Your task to perform on an android device: Open Chrome and go to settings Image 0: 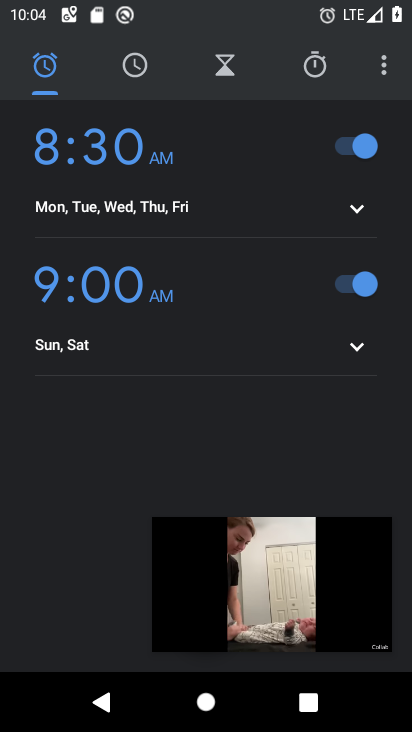
Step 0: press home button
Your task to perform on an android device: Open Chrome and go to settings Image 1: 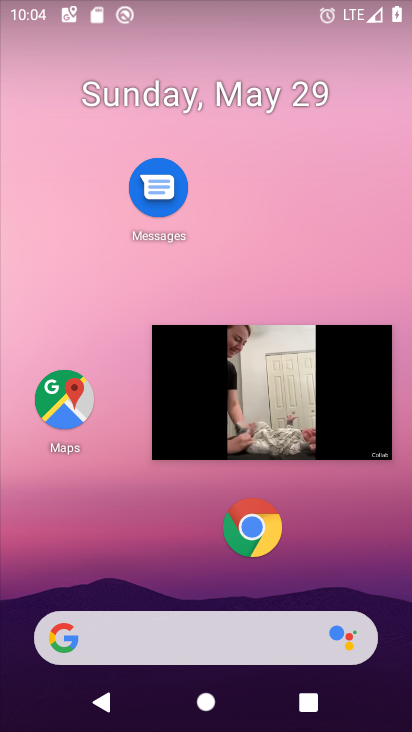
Step 1: click (277, 373)
Your task to perform on an android device: Open Chrome and go to settings Image 2: 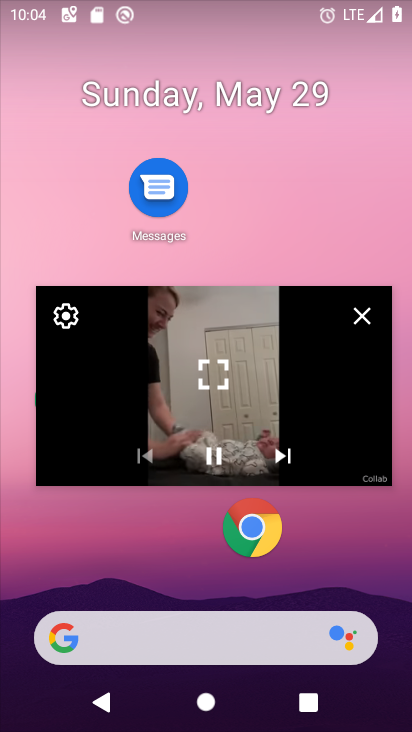
Step 2: click (368, 313)
Your task to perform on an android device: Open Chrome and go to settings Image 3: 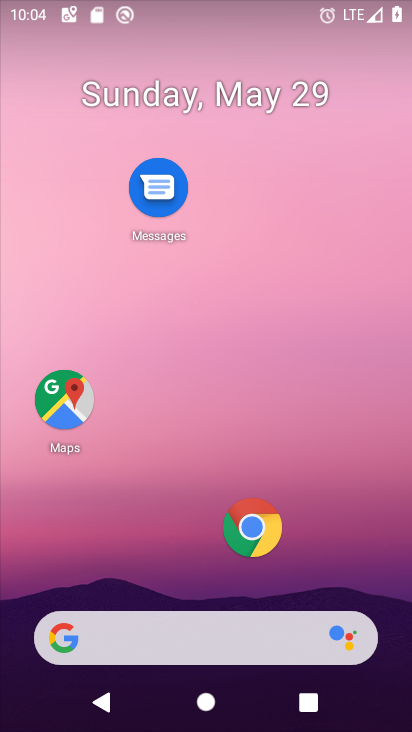
Step 3: click (252, 521)
Your task to perform on an android device: Open Chrome and go to settings Image 4: 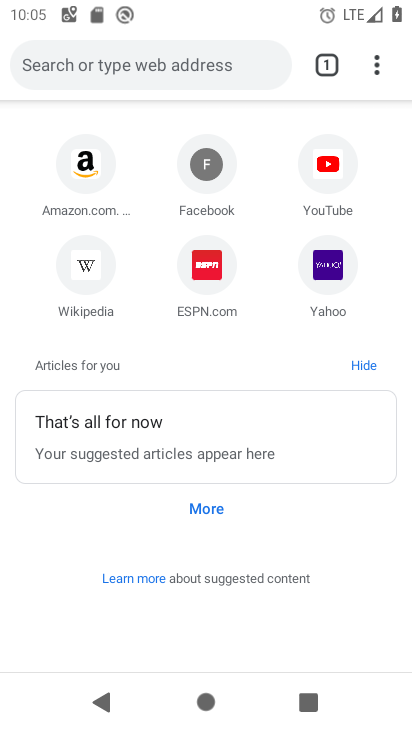
Step 4: click (380, 59)
Your task to perform on an android device: Open Chrome and go to settings Image 5: 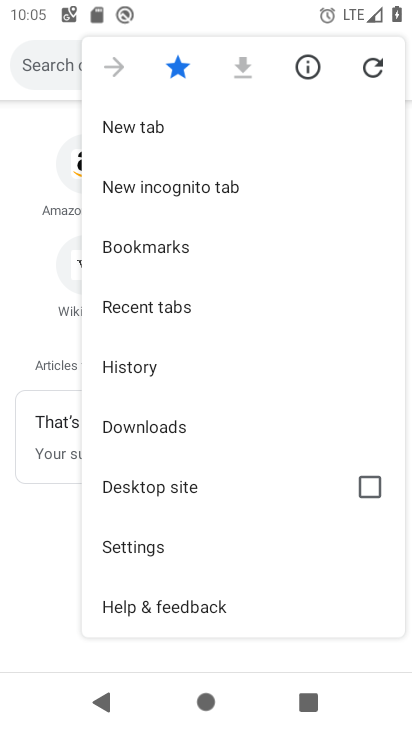
Step 5: click (167, 539)
Your task to perform on an android device: Open Chrome and go to settings Image 6: 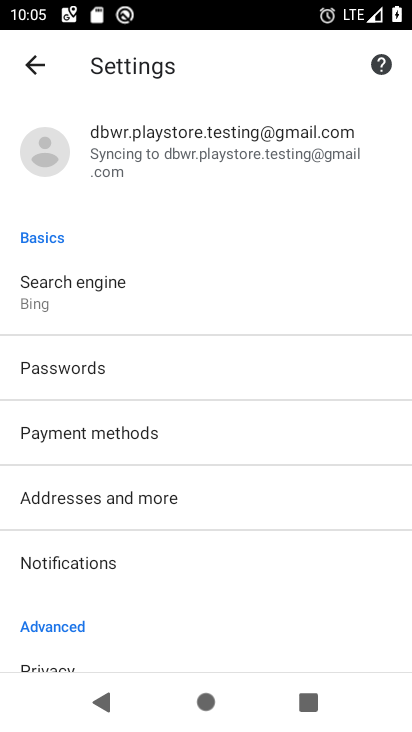
Step 6: task complete